Your task to perform on an android device: Do I have any events today? Image 0: 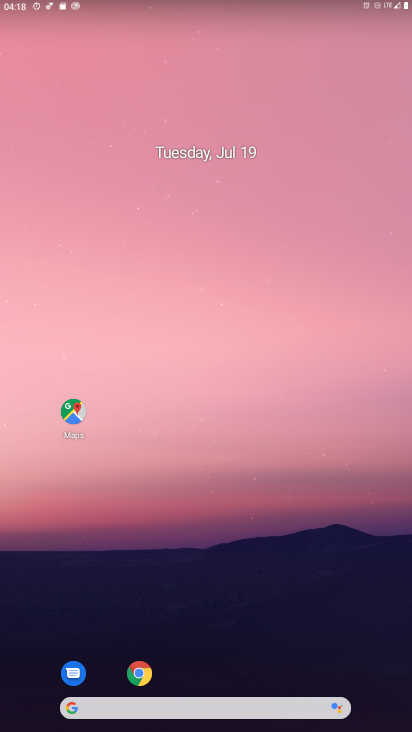
Step 0: drag from (214, 655) to (179, 31)
Your task to perform on an android device: Do I have any events today? Image 1: 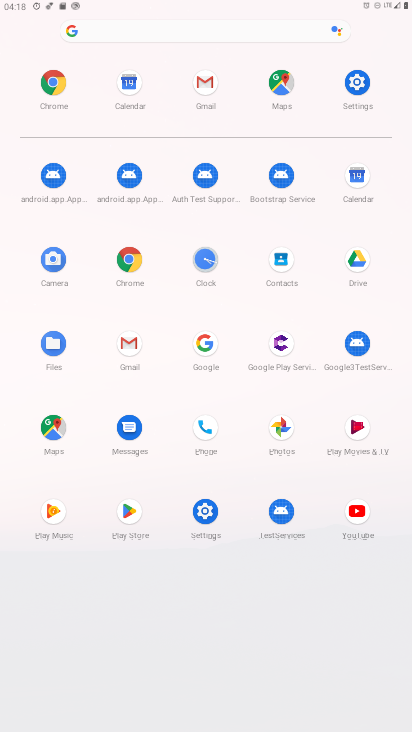
Step 1: click (365, 191)
Your task to perform on an android device: Do I have any events today? Image 2: 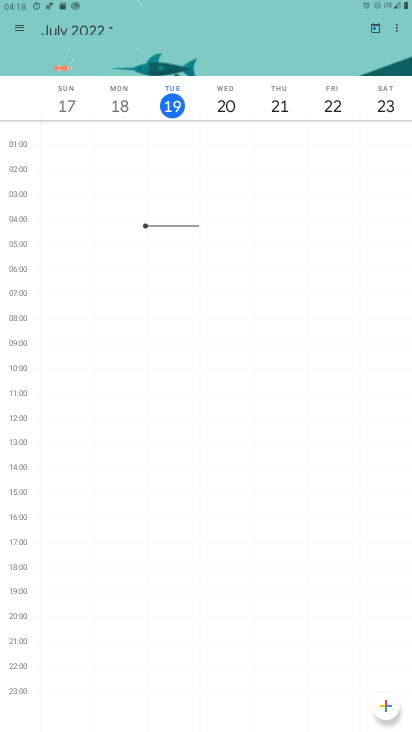
Step 2: click (17, 21)
Your task to perform on an android device: Do I have any events today? Image 3: 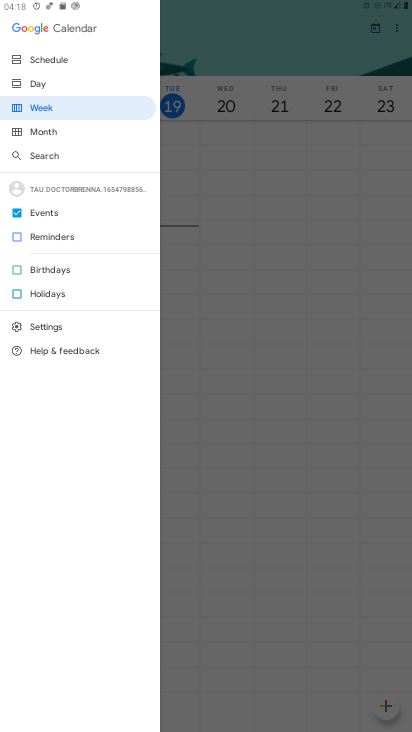
Step 3: click (34, 78)
Your task to perform on an android device: Do I have any events today? Image 4: 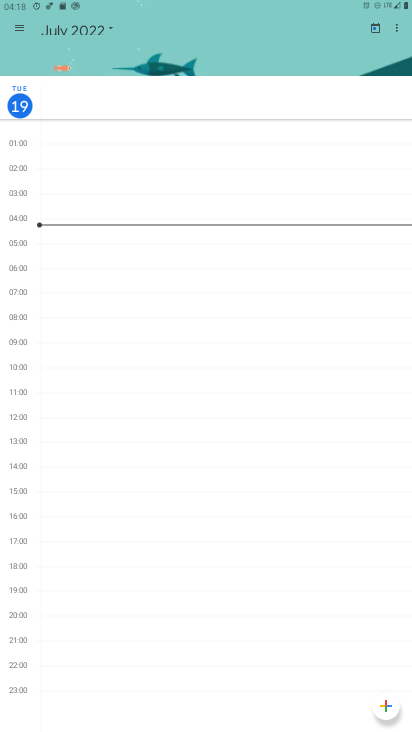
Step 4: task complete